Your task to perform on an android device: check android version Image 0: 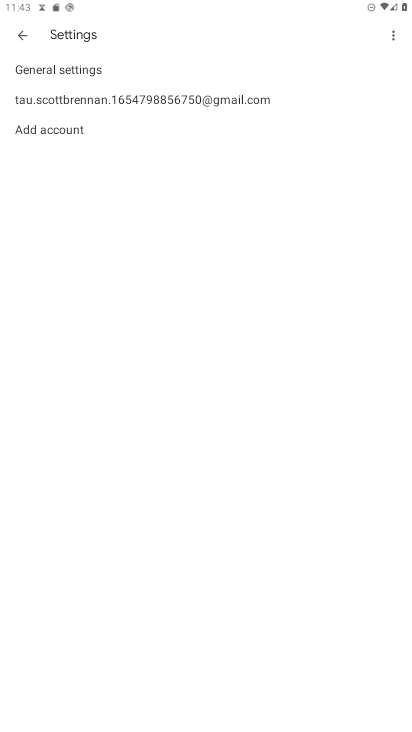
Step 0: press home button
Your task to perform on an android device: check android version Image 1: 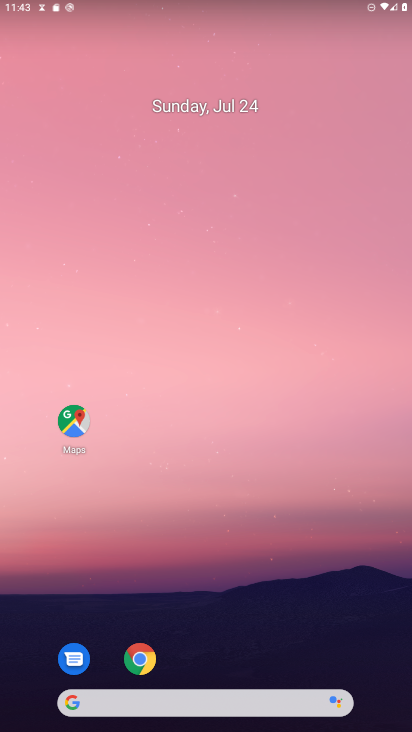
Step 1: drag from (143, 636) to (205, 185)
Your task to perform on an android device: check android version Image 2: 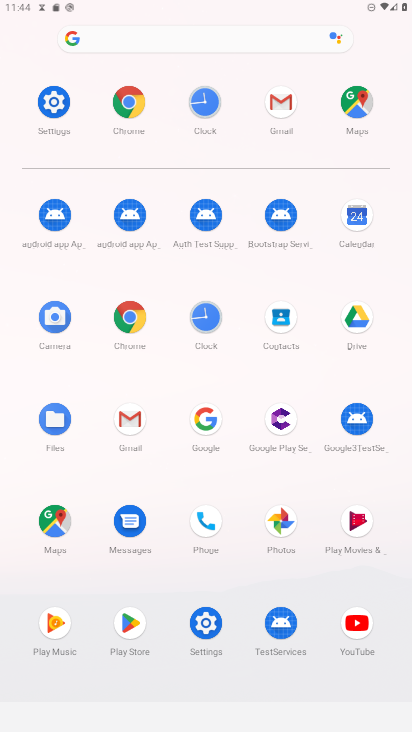
Step 2: click (59, 91)
Your task to perform on an android device: check android version Image 3: 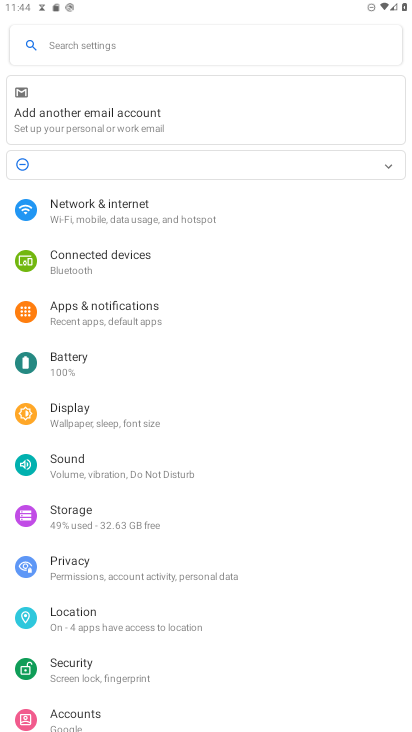
Step 3: drag from (203, 659) to (281, 220)
Your task to perform on an android device: check android version Image 4: 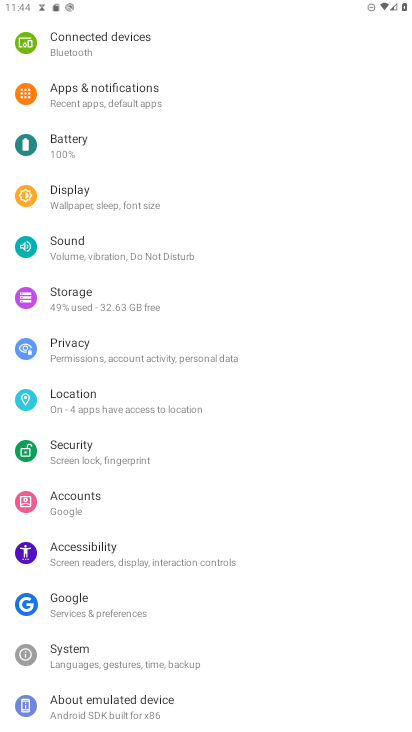
Step 4: drag from (122, 710) to (392, 13)
Your task to perform on an android device: check android version Image 5: 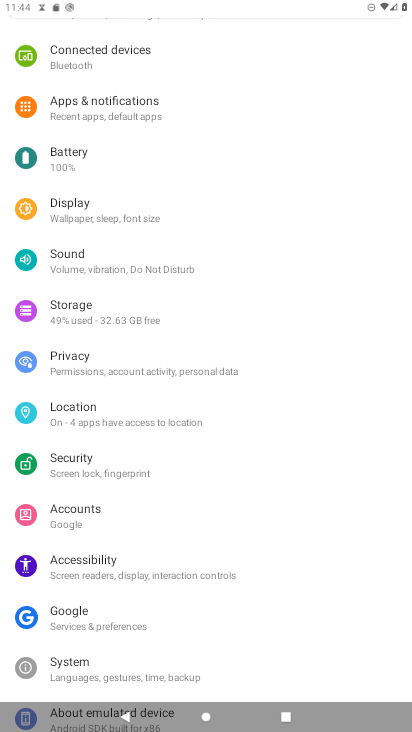
Step 5: click (289, 72)
Your task to perform on an android device: check android version Image 6: 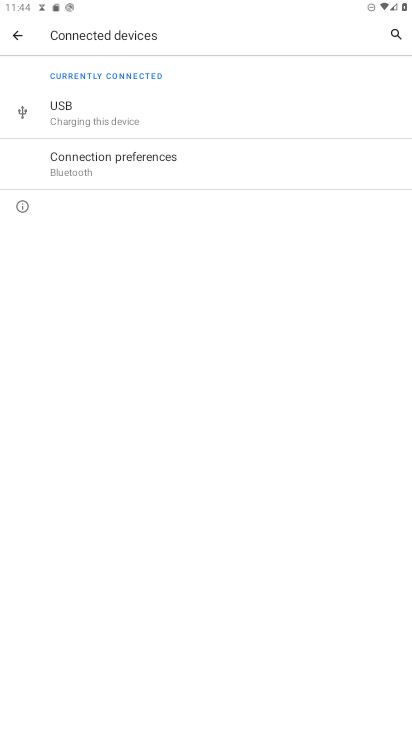
Step 6: click (13, 29)
Your task to perform on an android device: check android version Image 7: 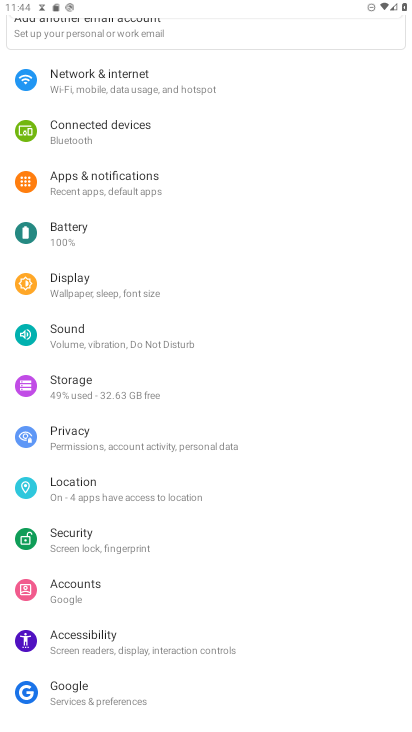
Step 7: drag from (80, 719) to (172, 106)
Your task to perform on an android device: check android version Image 8: 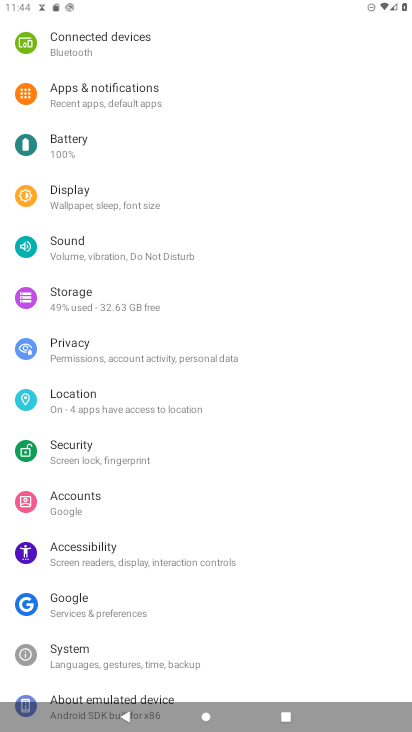
Step 8: click (47, 705)
Your task to perform on an android device: check android version Image 9: 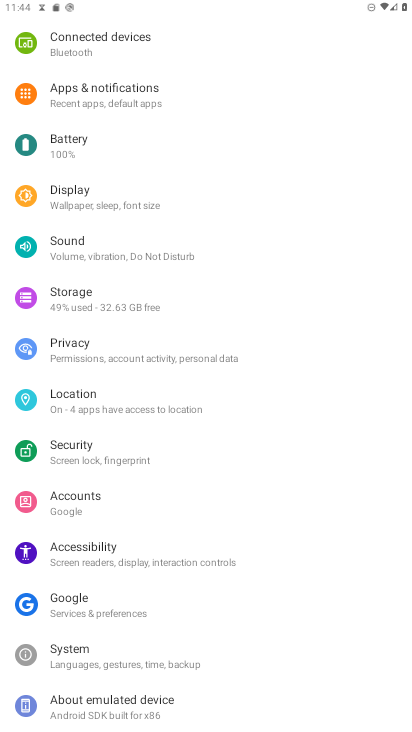
Step 9: click (47, 705)
Your task to perform on an android device: check android version Image 10: 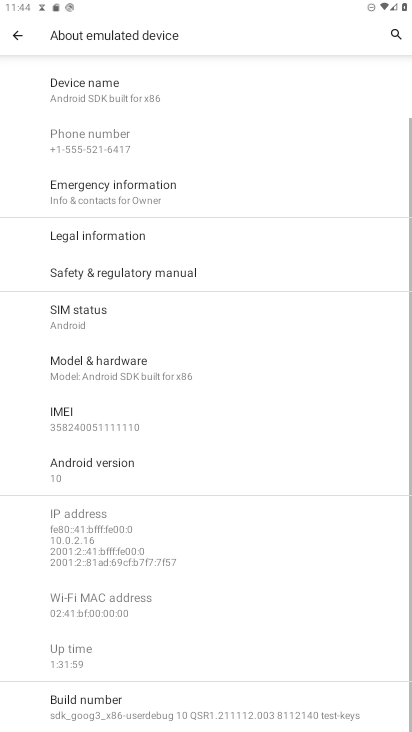
Step 10: click (84, 456)
Your task to perform on an android device: check android version Image 11: 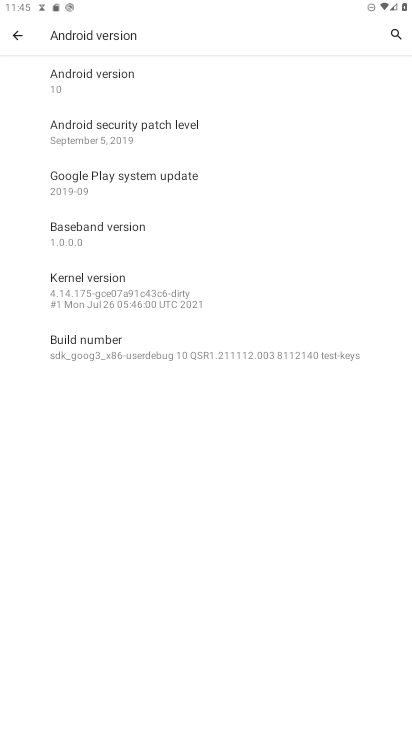
Step 11: task complete